Your task to perform on an android device: turn off translation in the chrome app Image 0: 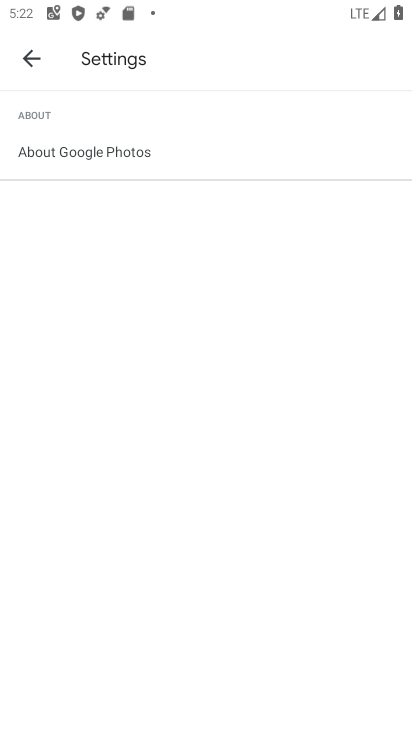
Step 0: press home button
Your task to perform on an android device: turn off translation in the chrome app Image 1: 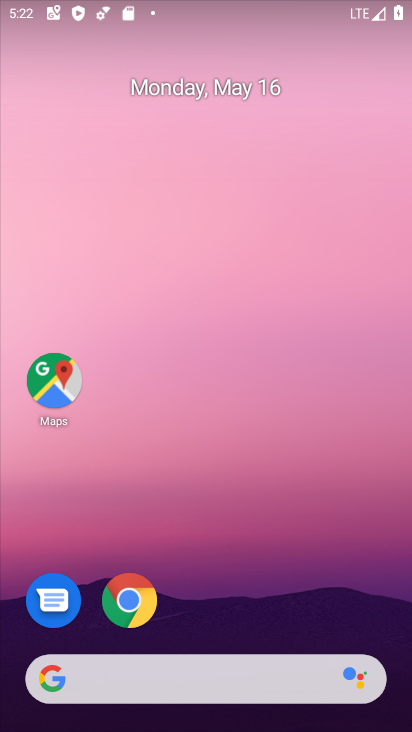
Step 1: drag from (181, 646) to (254, 0)
Your task to perform on an android device: turn off translation in the chrome app Image 2: 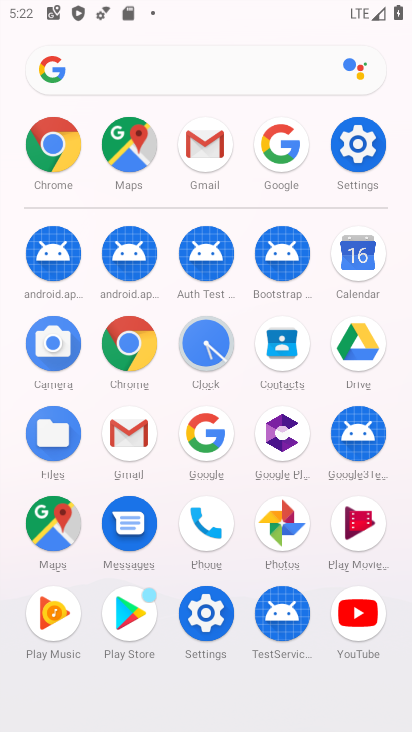
Step 2: click (141, 351)
Your task to perform on an android device: turn off translation in the chrome app Image 3: 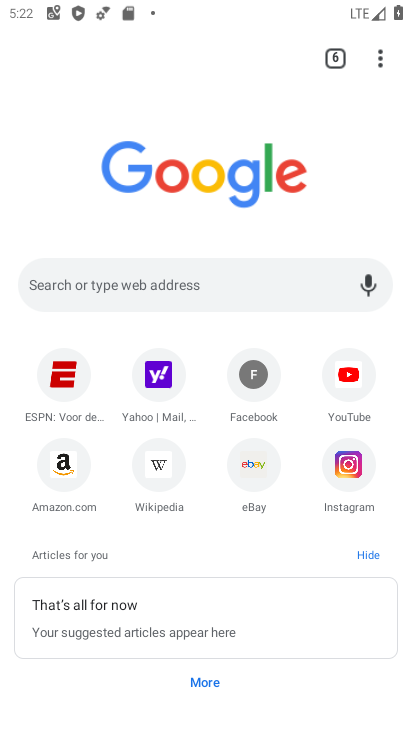
Step 3: click (374, 52)
Your task to perform on an android device: turn off translation in the chrome app Image 4: 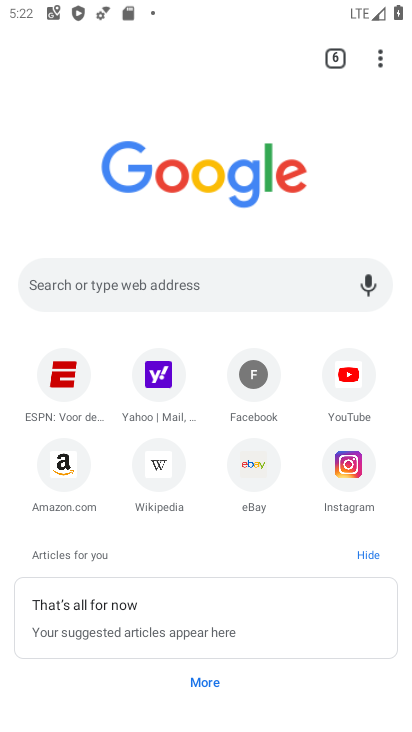
Step 4: click (377, 58)
Your task to perform on an android device: turn off translation in the chrome app Image 5: 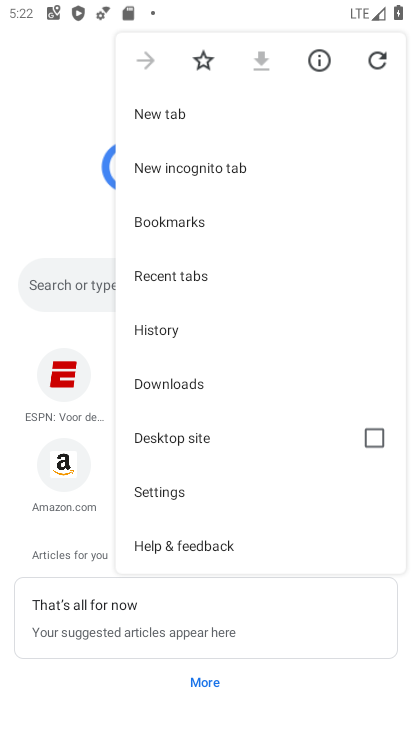
Step 5: click (180, 503)
Your task to perform on an android device: turn off translation in the chrome app Image 6: 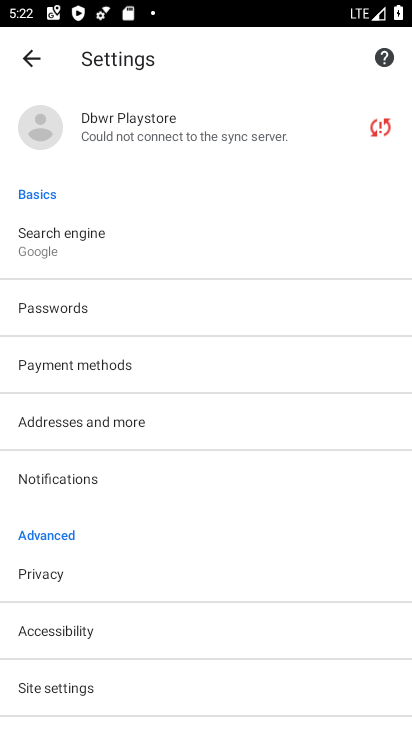
Step 6: drag from (115, 616) to (82, 316)
Your task to perform on an android device: turn off translation in the chrome app Image 7: 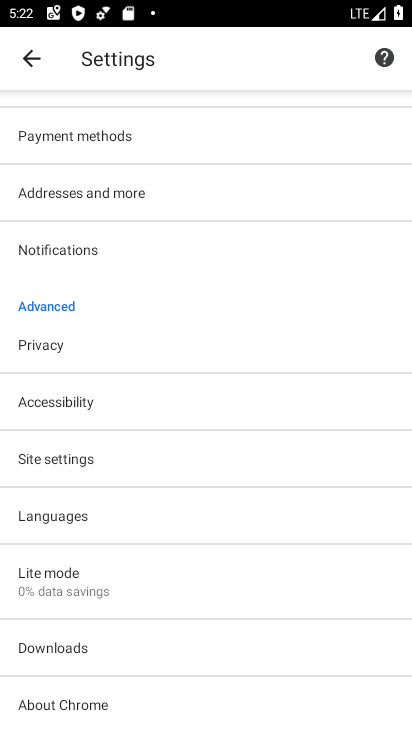
Step 7: click (63, 521)
Your task to perform on an android device: turn off translation in the chrome app Image 8: 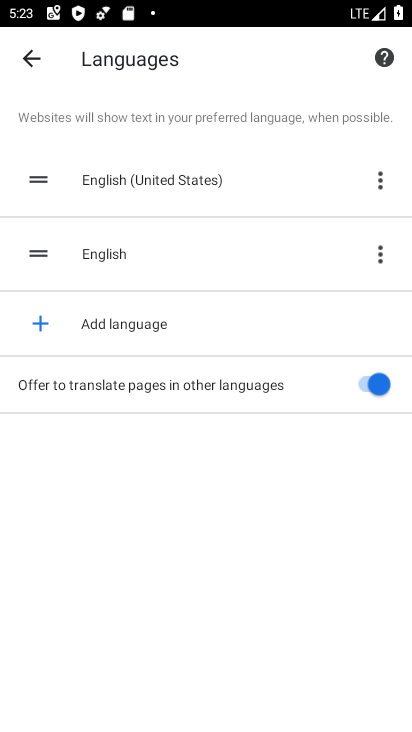
Step 8: click (374, 398)
Your task to perform on an android device: turn off translation in the chrome app Image 9: 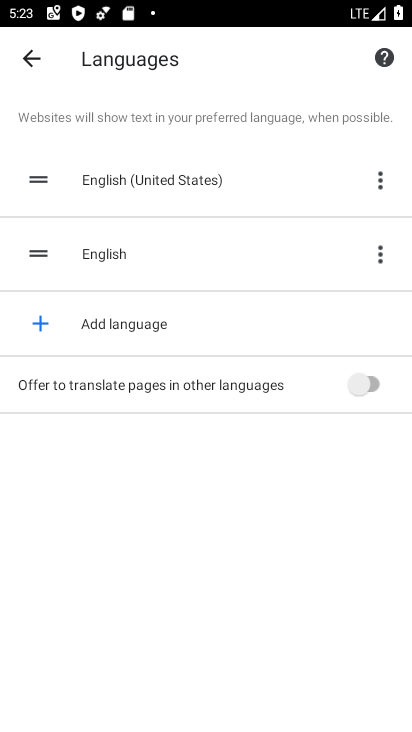
Step 9: task complete